Your task to perform on an android device: Open Reddit.com Image 0: 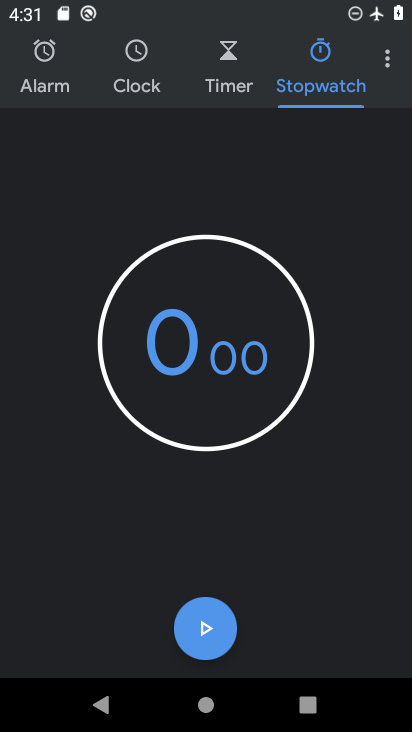
Step 0: press home button
Your task to perform on an android device: Open Reddit.com Image 1: 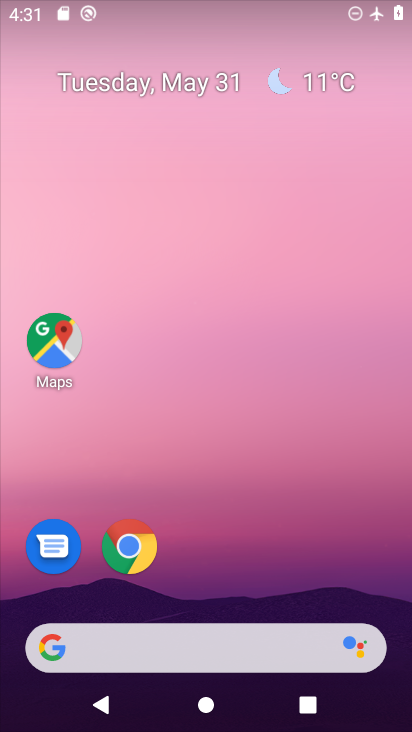
Step 1: click (121, 549)
Your task to perform on an android device: Open Reddit.com Image 2: 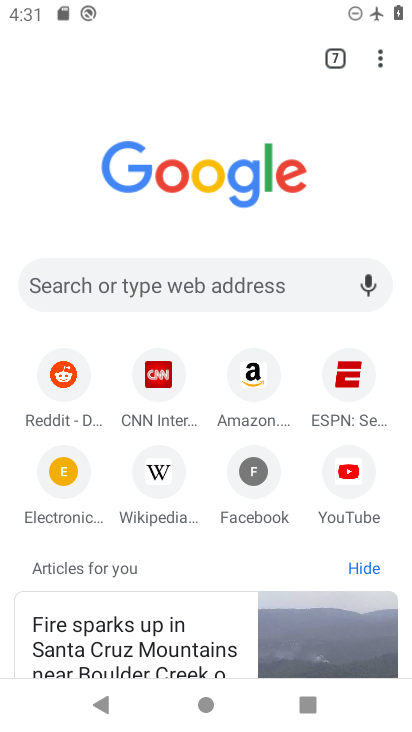
Step 2: click (58, 378)
Your task to perform on an android device: Open Reddit.com Image 3: 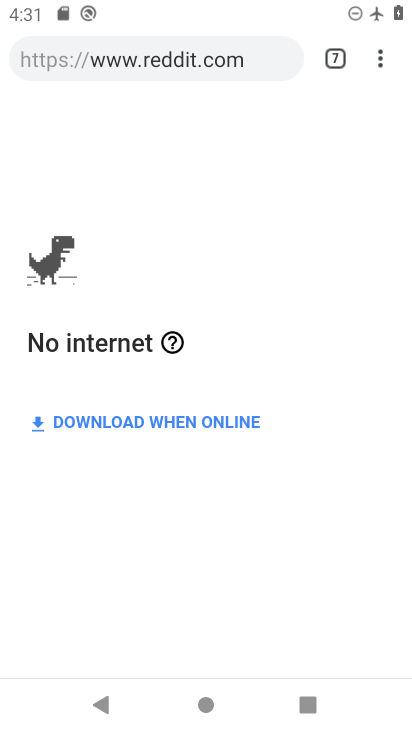
Step 3: task complete